Your task to perform on an android device: change the clock style Image 0: 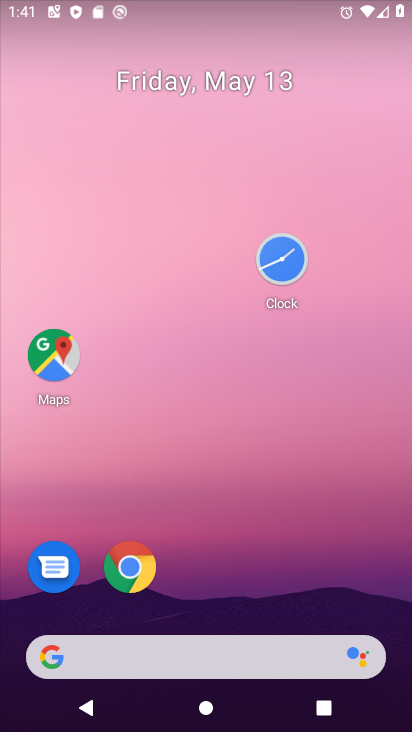
Step 0: click (277, 261)
Your task to perform on an android device: change the clock style Image 1: 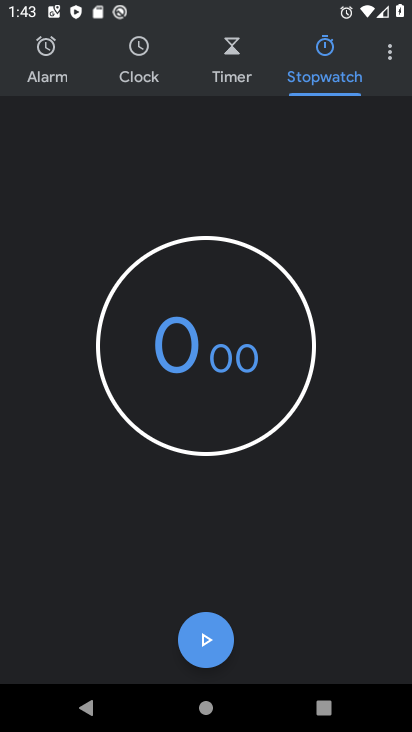
Step 1: click (389, 59)
Your task to perform on an android device: change the clock style Image 2: 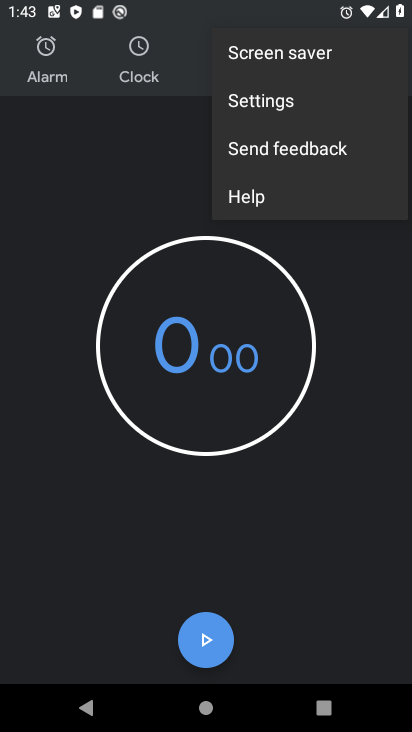
Step 2: click (306, 114)
Your task to perform on an android device: change the clock style Image 3: 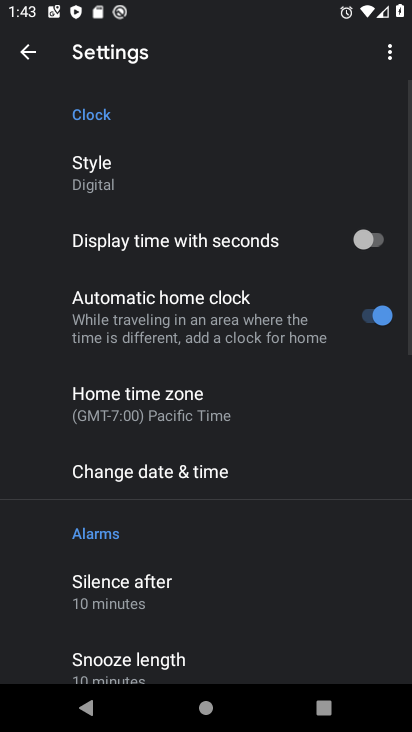
Step 3: click (138, 199)
Your task to perform on an android device: change the clock style Image 4: 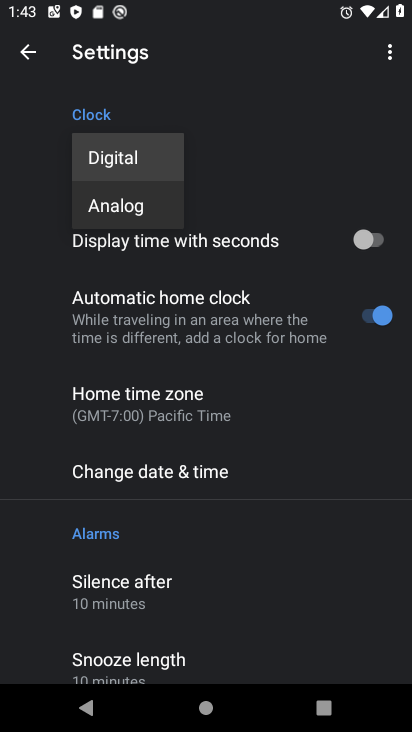
Step 4: click (144, 199)
Your task to perform on an android device: change the clock style Image 5: 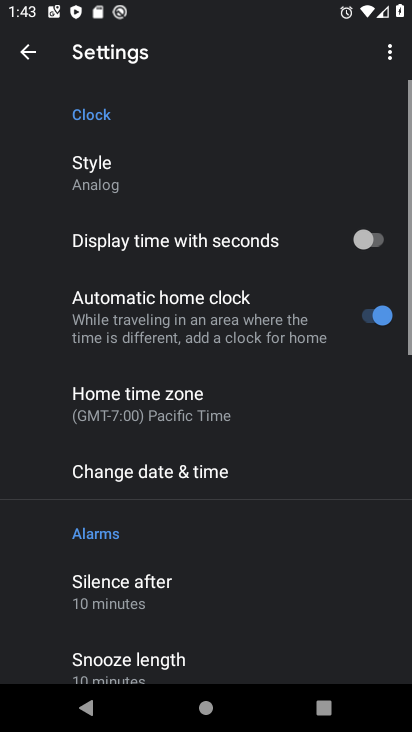
Step 5: task complete